Your task to perform on an android device: Open accessibility settings Image 0: 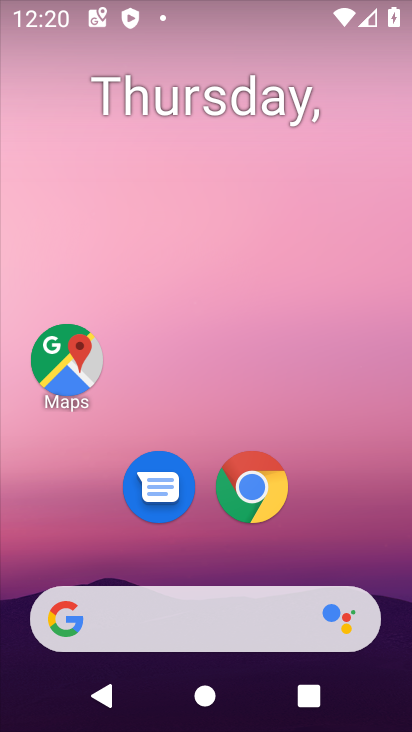
Step 0: drag from (362, 556) to (219, 79)
Your task to perform on an android device: Open accessibility settings Image 1: 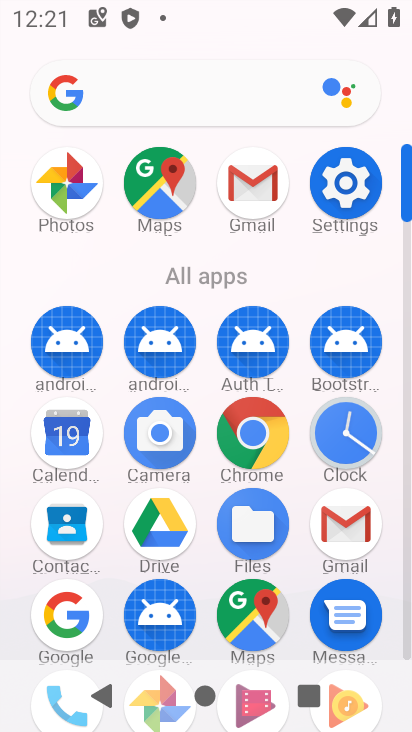
Step 1: click (346, 180)
Your task to perform on an android device: Open accessibility settings Image 2: 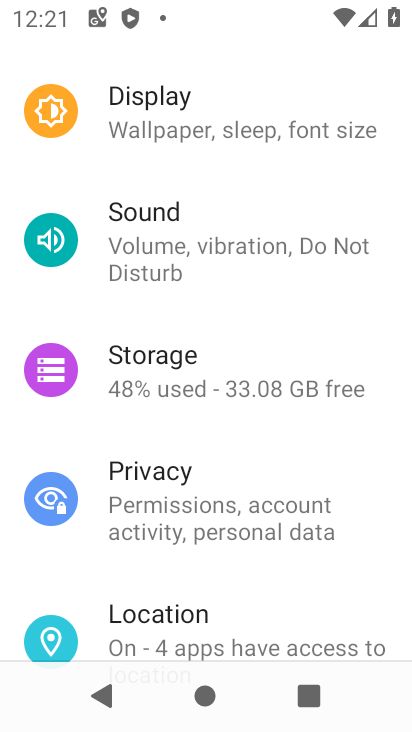
Step 2: drag from (304, 609) to (271, 30)
Your task to perform on an android device: Open accessibility settings Image 3: 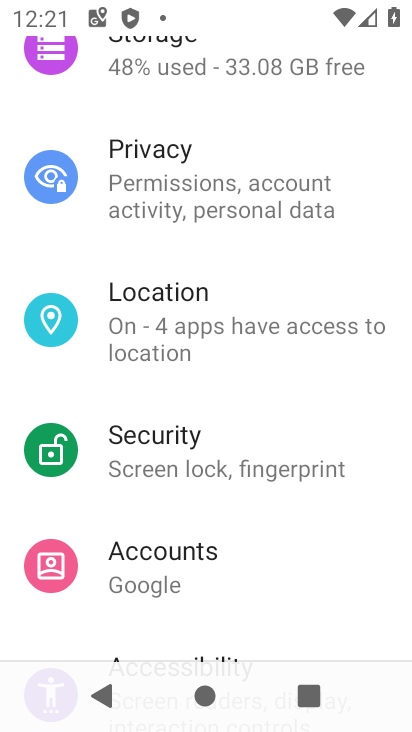
Step 3: drag from (253, 474) to (180, 190)
Your task to perform on an android device: Open accessibility settings Image 4: 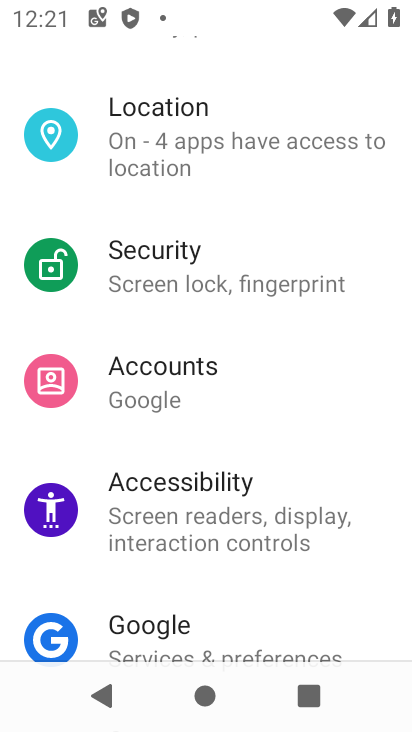
Step 4: click (172, 516)
Your task to perform on an android device: Open accessibility settings Image 5: 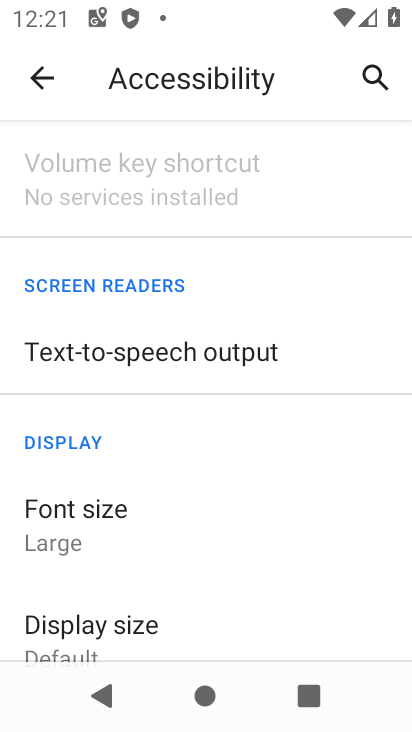
Step 5: task complete